Your task to perform on an android device: What's on my calendar today? Image 0: 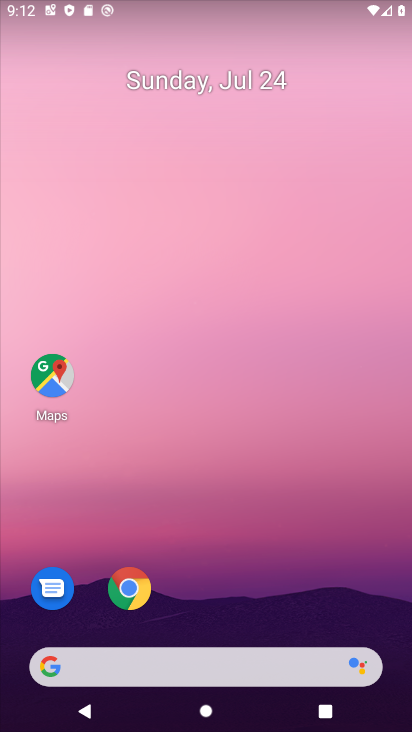
Step 0: drag from (217, 643) to (231, 4)
Your task to perform on an android device: What's on my calendar today? Image 1: 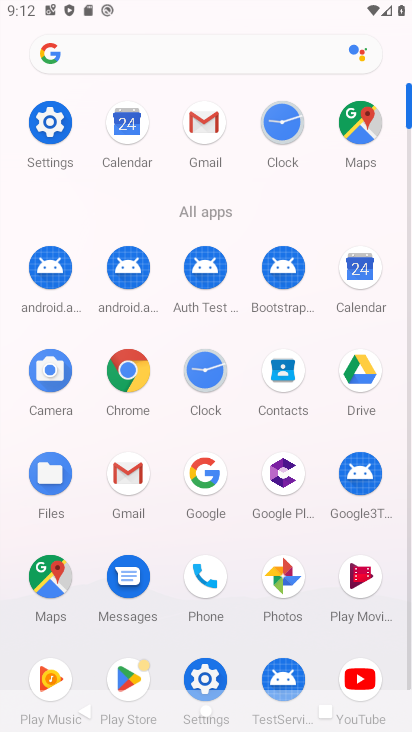
Step 1: click (361, 268)
Your task to perform on an android device: What's on my calendar today? Image 2: 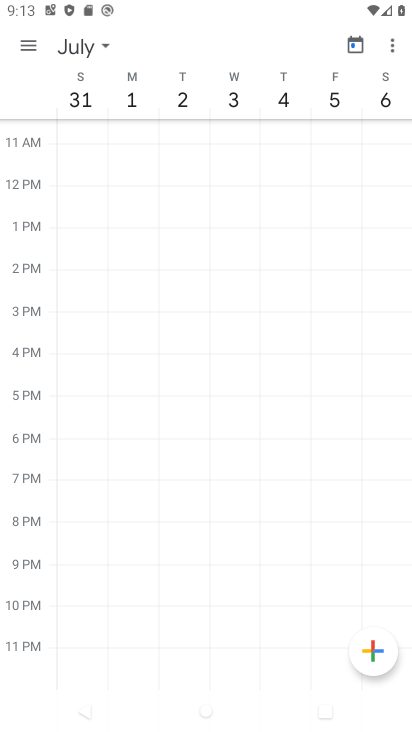
Step 2: click (33, 50)
Your task to perform on an android device: What's on my calendar today? Image 3: 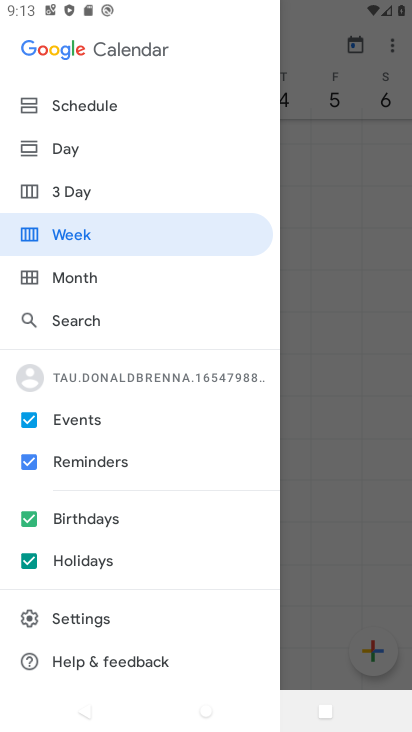
Step 3: click (56, 151)
Your task to perform on an android device: What's on my calendar today? Image 4: 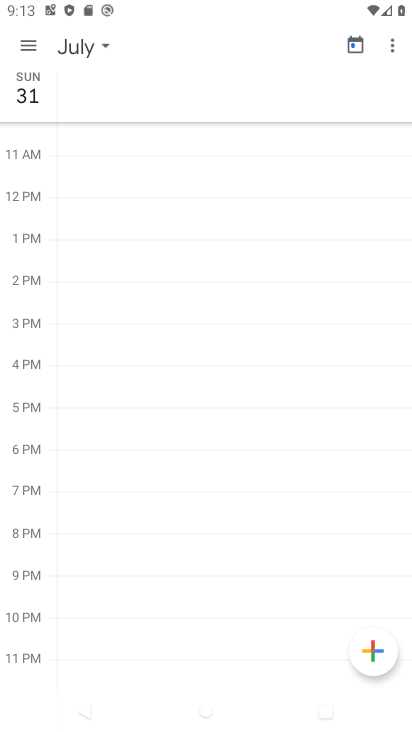
Step 4: click (31, 36)
Your task to perform on an android device: What's on my calendar today? Image 5: 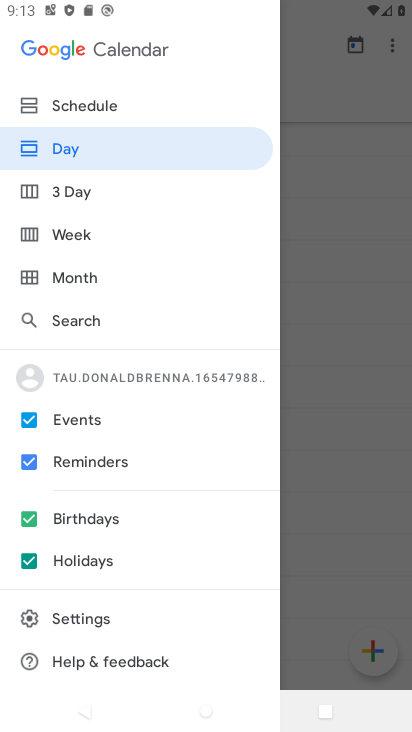
Step 5: click (158, 150)
Your task to perform on an android device: What's on my calendar today? Image 6: 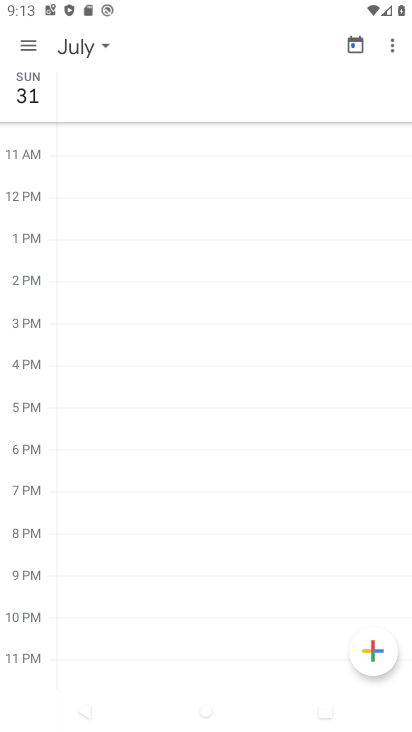
Step 6: click (109, 45)
Your task to perform on an android device: What's on my calendar today? Image 7: 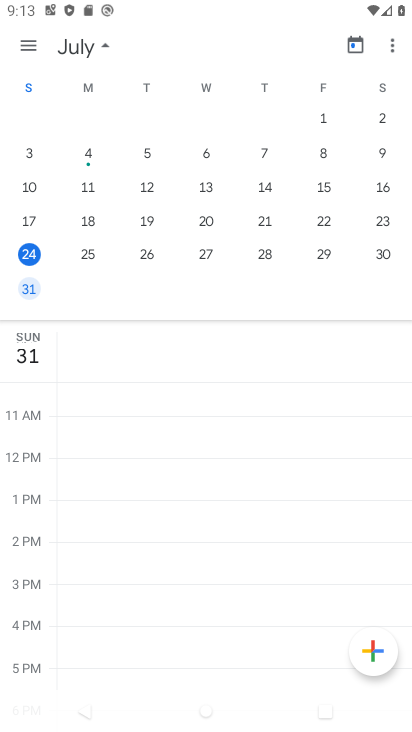
Step 7: click (29, 259)
Your task to perform on an android device: What's on my calendar today? Image 8: 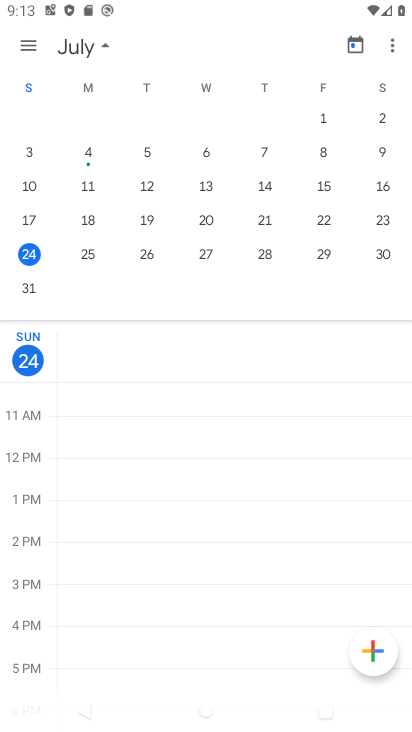
Step 8: task complete